Your task to perform on an android device: Find coffee shops on Maps Image 0: 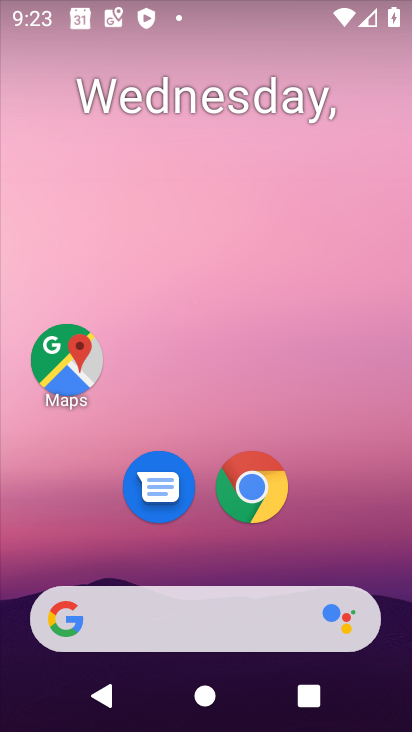
Step 0: press home button
Your task to perform on an android device: Find coffee shops on Maps Image 1: 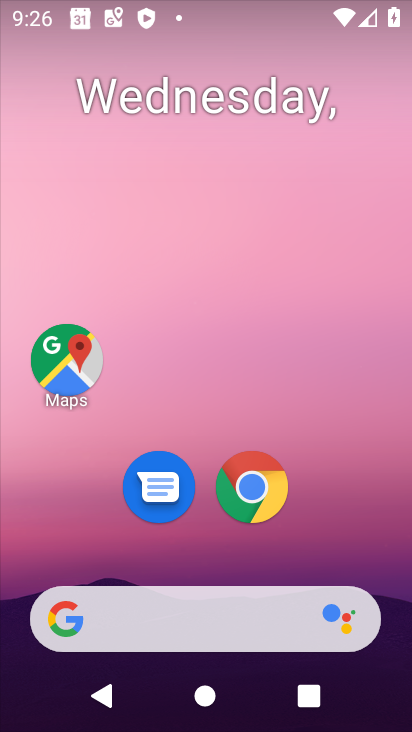
Step 1: drag from (260, 652) to (242, 215)
Your task to perform on an android device: Find coffee shops on Maps Image 2: 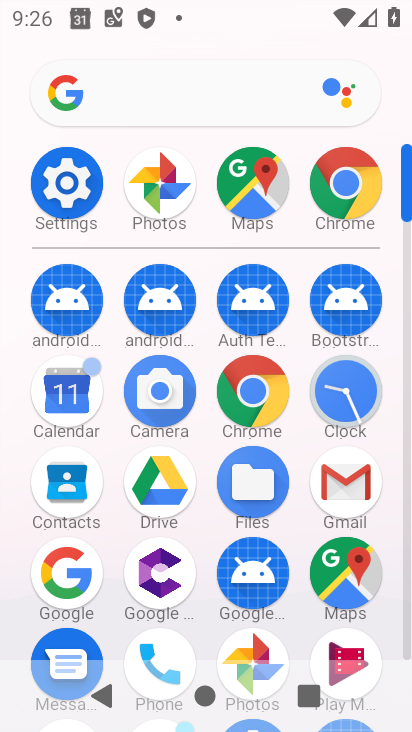
Step 2: click (366, 565)
Your task to perform on an android device: Find coffee shops on Maps Image 3: 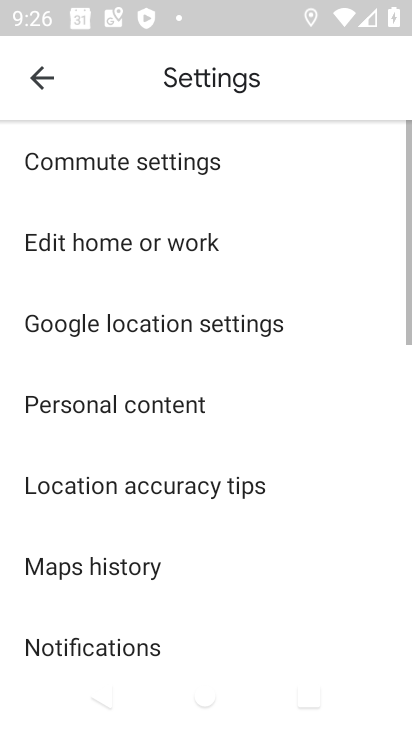
Step 3: click (28, 85)
Your task to perform on an android device: Find coffee shops on Maps Image 4: 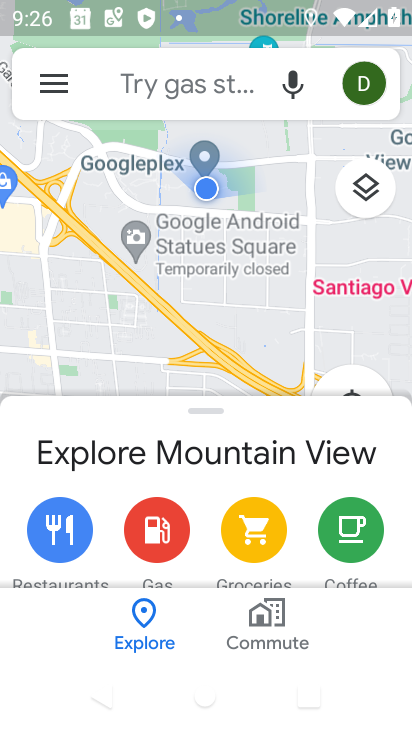
Step 4: click (28, 86)
Your task to perform on an android device: Find coffee shops on Maps Image 5: 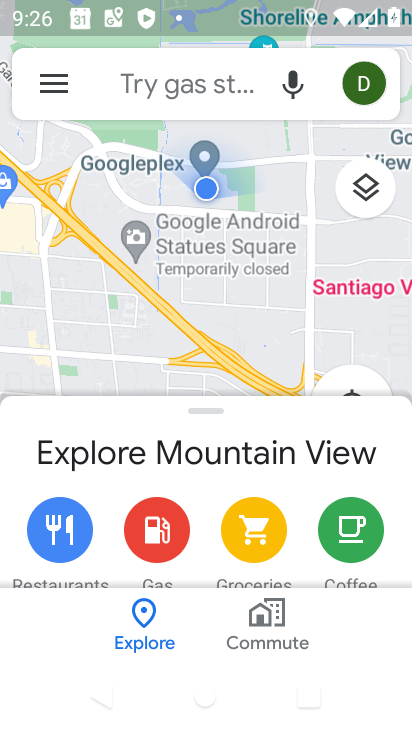
Step 5: click (161, 97)
Your task to perform on an android device: Find coffee shops on Maps Image 6: 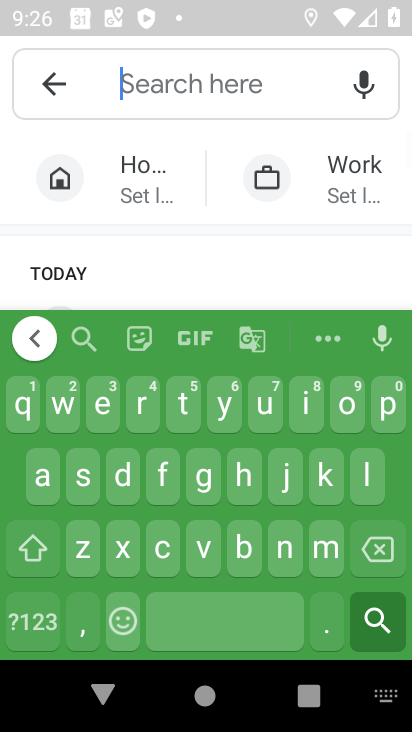
Step 6: click (168, 551)
Your task to perform on an android device: Find coffee shops on Maps Image 7: 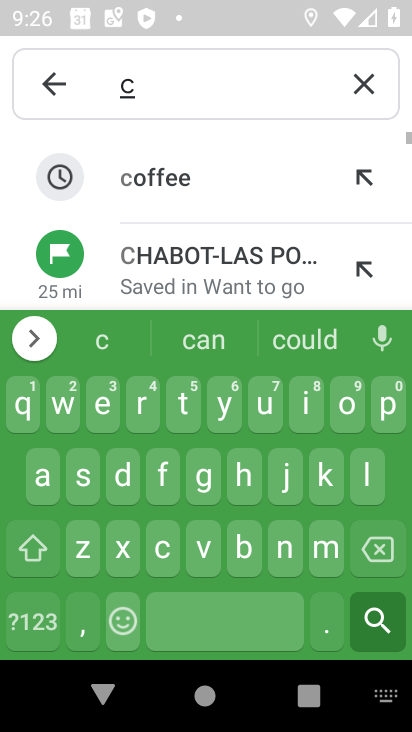
Step 7: click (176, 181)
Your task to perform on an android device: Find coffee shops on Maps Image 8: 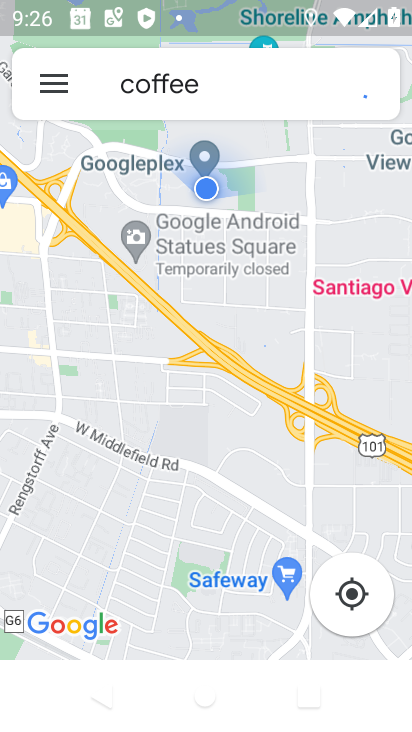
Step 8: task complete